Your task to perform on an android device: Open the web browser Image 0: 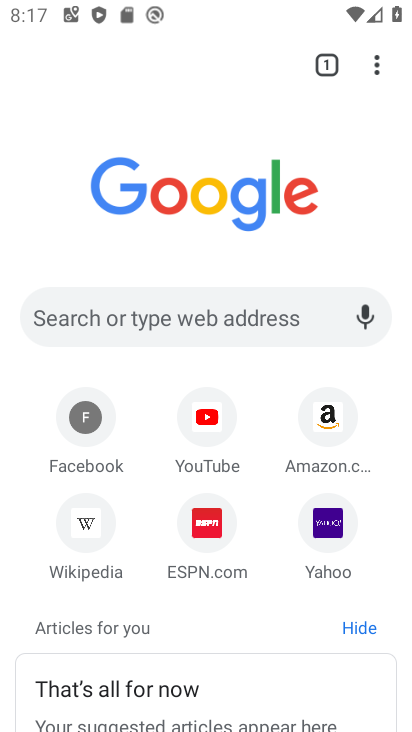
Step 0: task complete